Your task to perform on an android device: open sync settings in chrome Image 0: 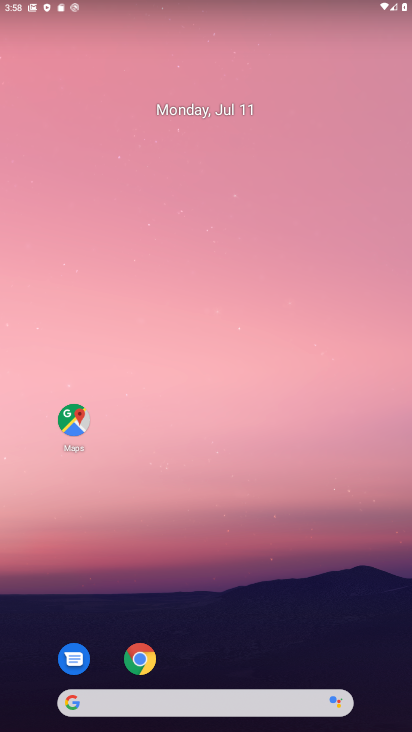
Step 0: click (138, 653)
Your task to perform on an android device: open sync settings in chrome Image 1: 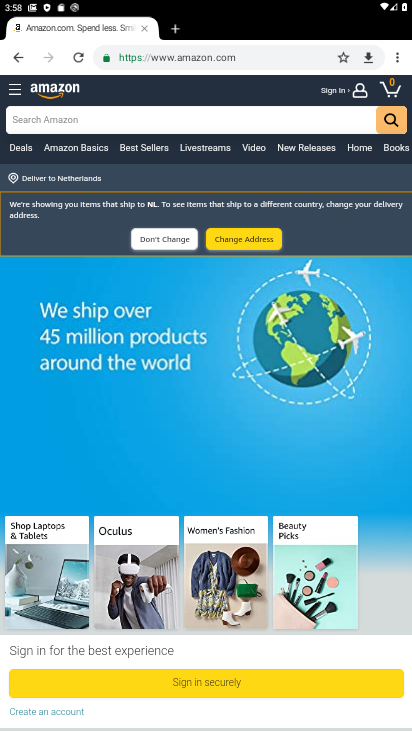
Step 1: click (395, 54)
Your task to perform on an android device: open sync settings in chrome Image 2: 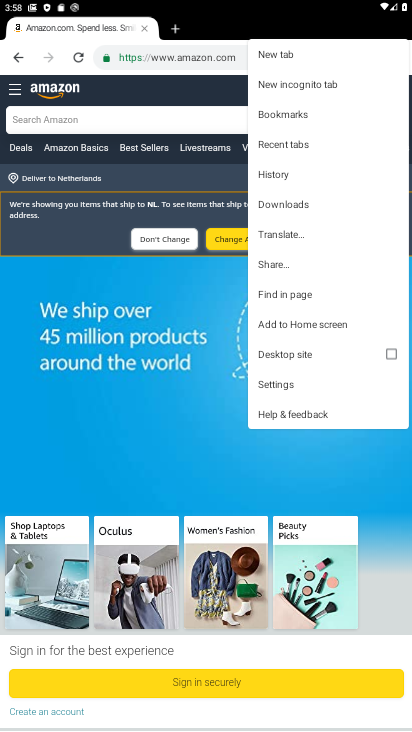
Step 2: click (288, 393)
Your task to perform on an android device: open sync settings in chrome Image 3: 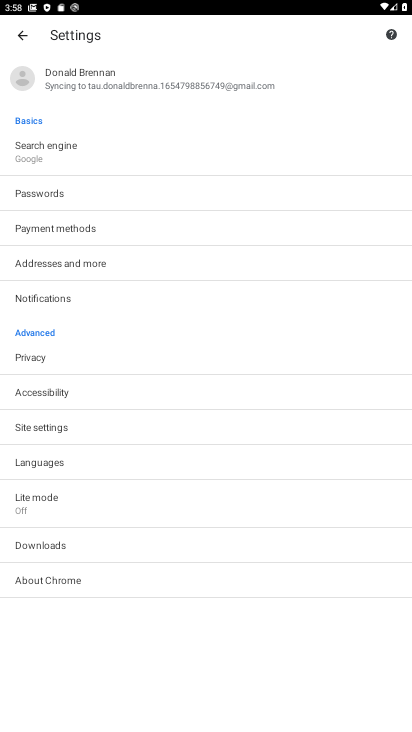
Step 3: click (90, 79)
Your task to perform on an android device: open sync settings in chrome Image 4: 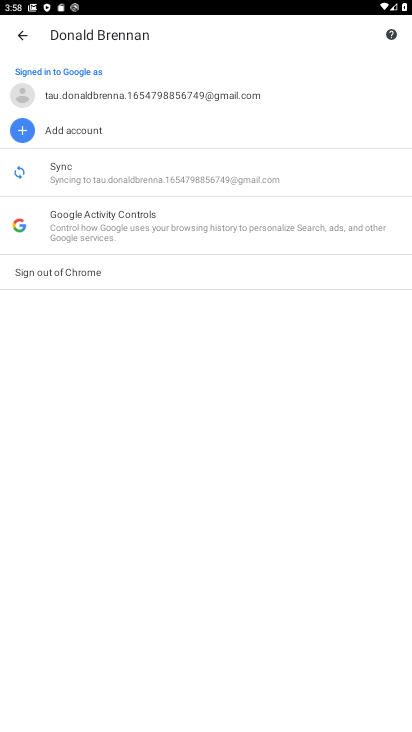
Step 4: click (109, 162)
Your task to perform on an android device: open sync settings in chrome Image 5: 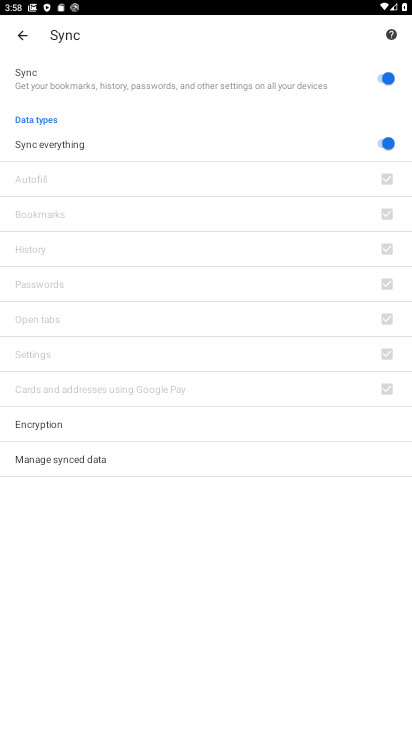
Step 5: task complete